Your task to perform on an android device: Turn on the flashlight Image 0: 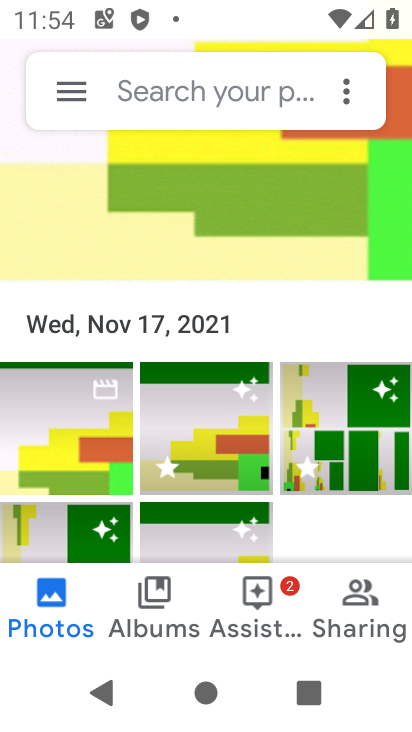
Step 0: press home button
Your task to perform on an android device: Turn on the flashlight Image 1: 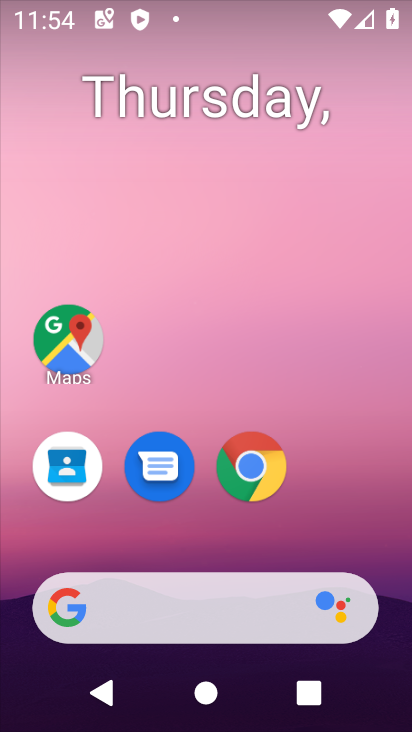
Step 1: drag from (216, 545) to (245, 86)
Your task to perform on an android device: Turn on the flashlight Image 2: 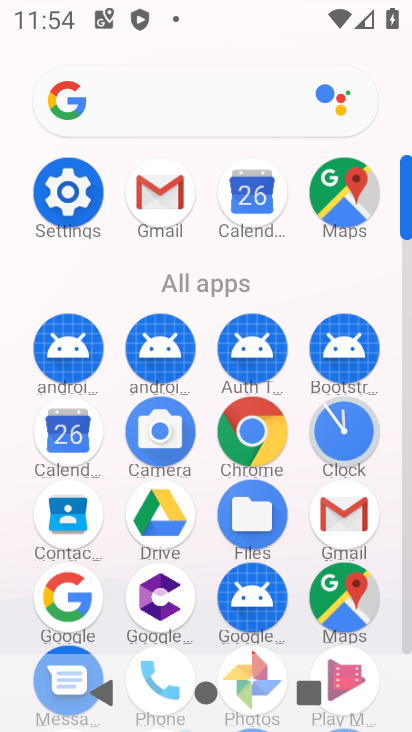
Step 2: click (69, 197)
Your task to perform on an android device: Turn on the flashlight Image 3: 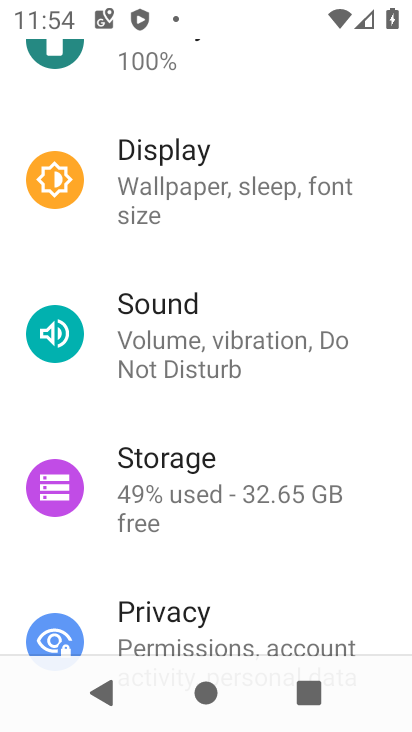
Step 3: task complete